Your task to perform on an android device: Go to Google Image 0: 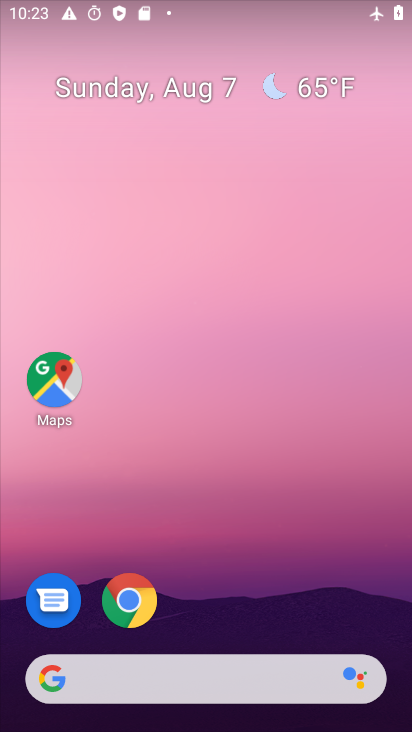
Step 0: drag from (211, 571) to (294, 22)
Your task to perform on an android device: Go to Google Image 1: 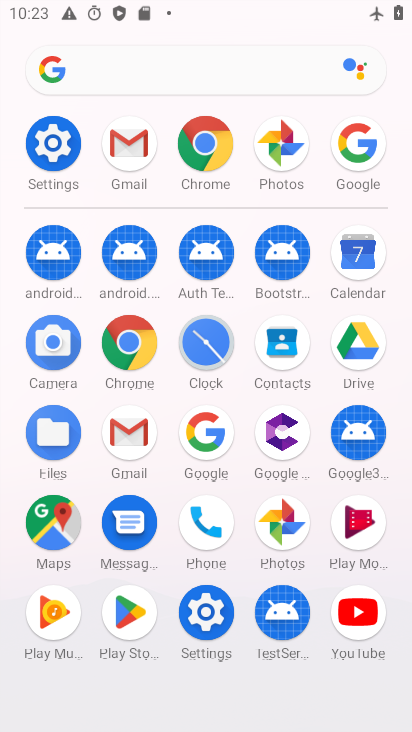
Step 1: click (205, 439)
Your task to perform on an android device: Go to Google Image 2: 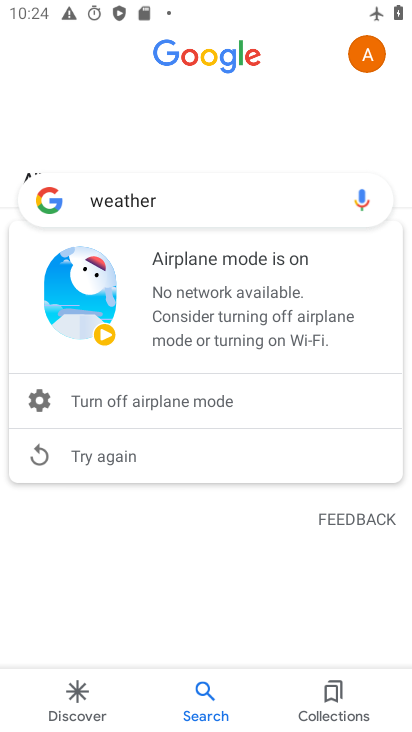
Step 2: task complete